Your task to perform on an android device: Open display settings Image 0: 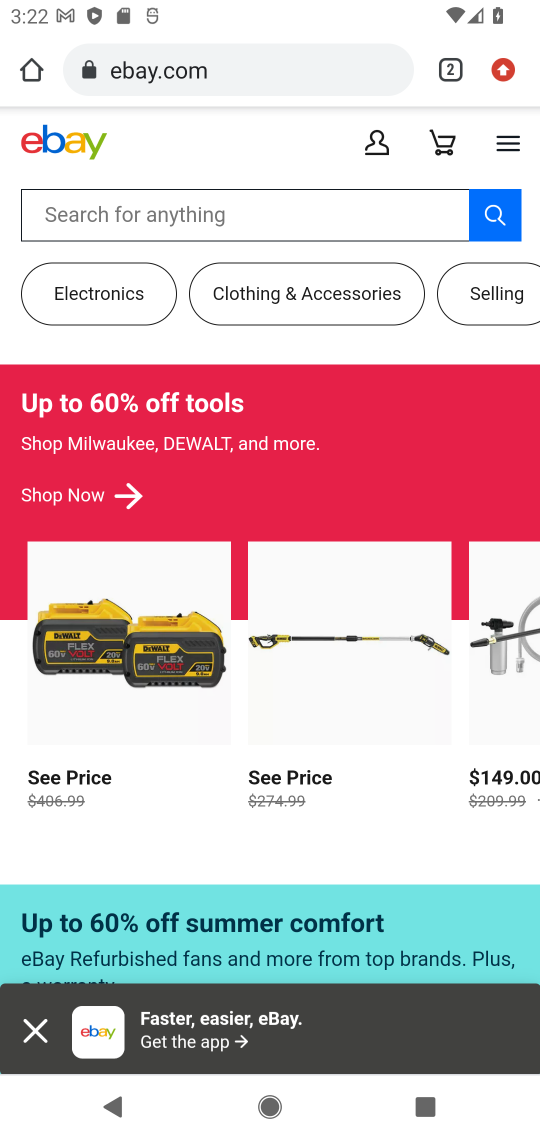
Step 0: press home button
Your task to perform on an android device: Open display settings Image 1: 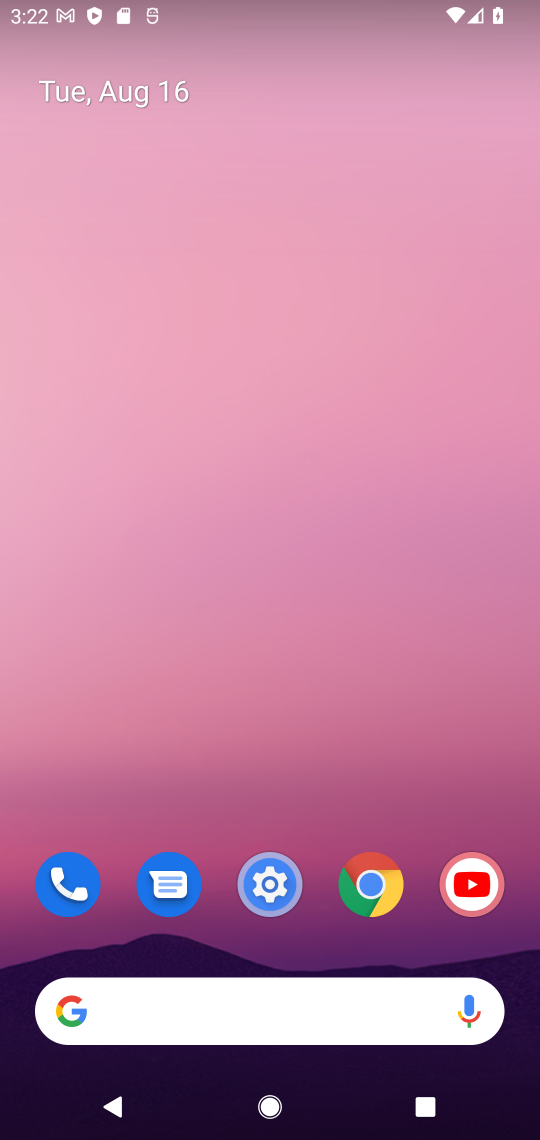
Step 1: click (261, 876)
Your task to perform on an android device: Open display settings Image 2: 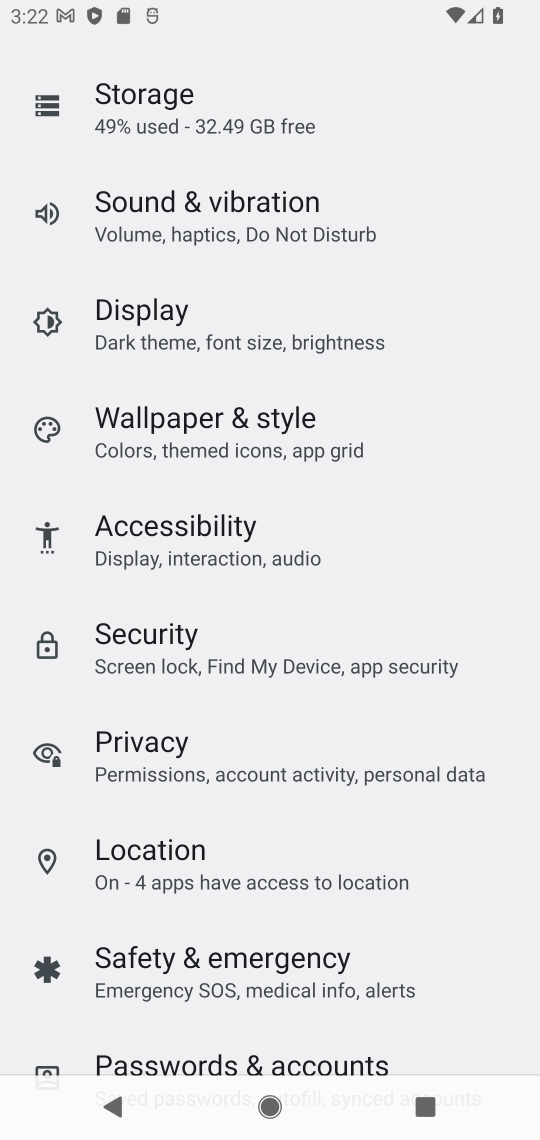
Step 2: drag from (243, 300) to (266, 834)
Your task to perform on an android device: Open display settings Image 3: 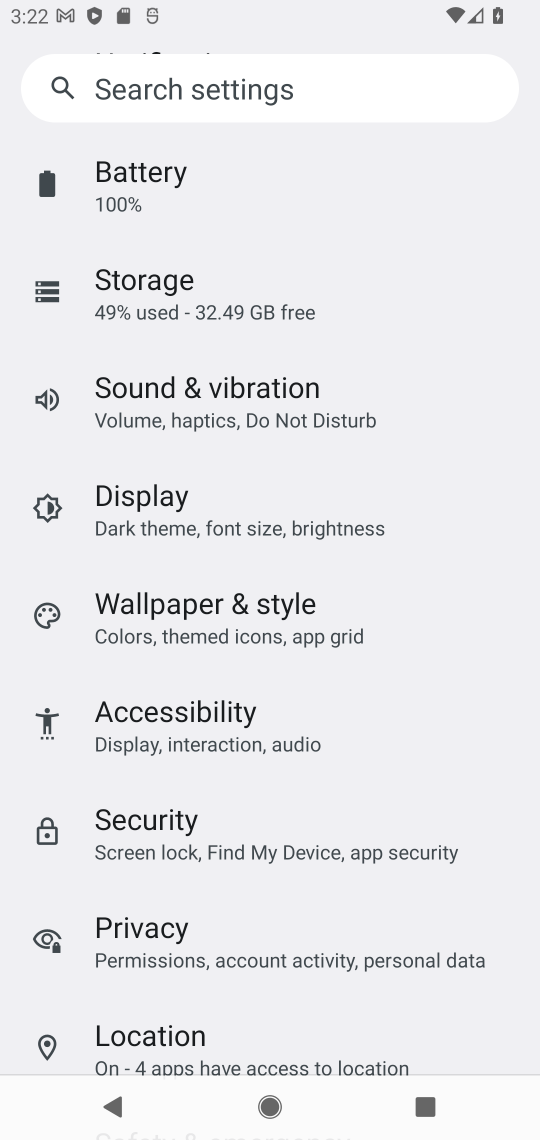
Step 3: drag from (271, 490) to (290, 918)
Your task to perform on an android device: Open display settings Image 4: 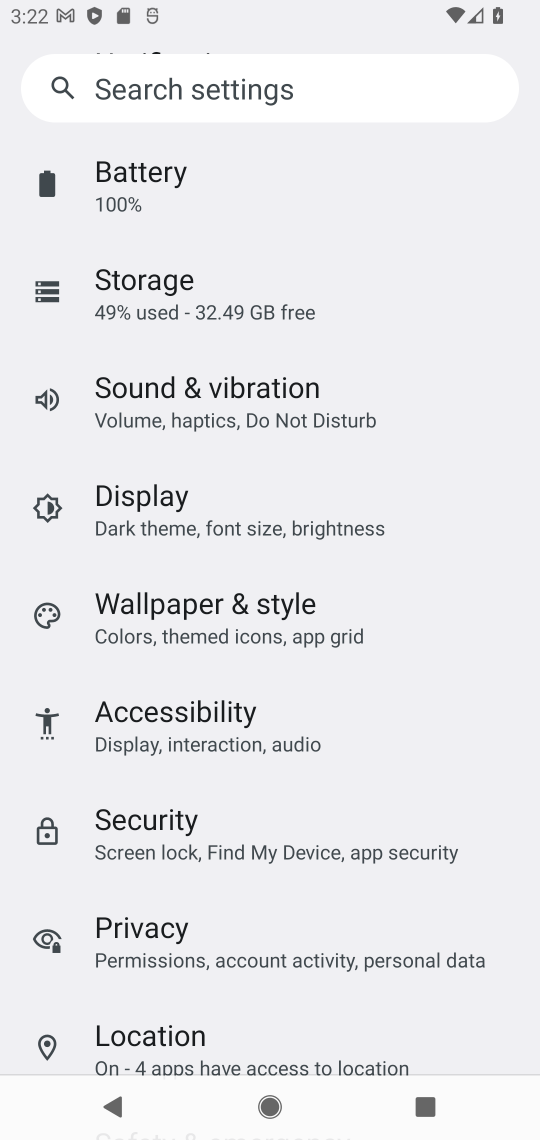
Step 4: drag from (219, 318) to (229, 891)
Your task to perform on an android device: Open display settings Image 5: 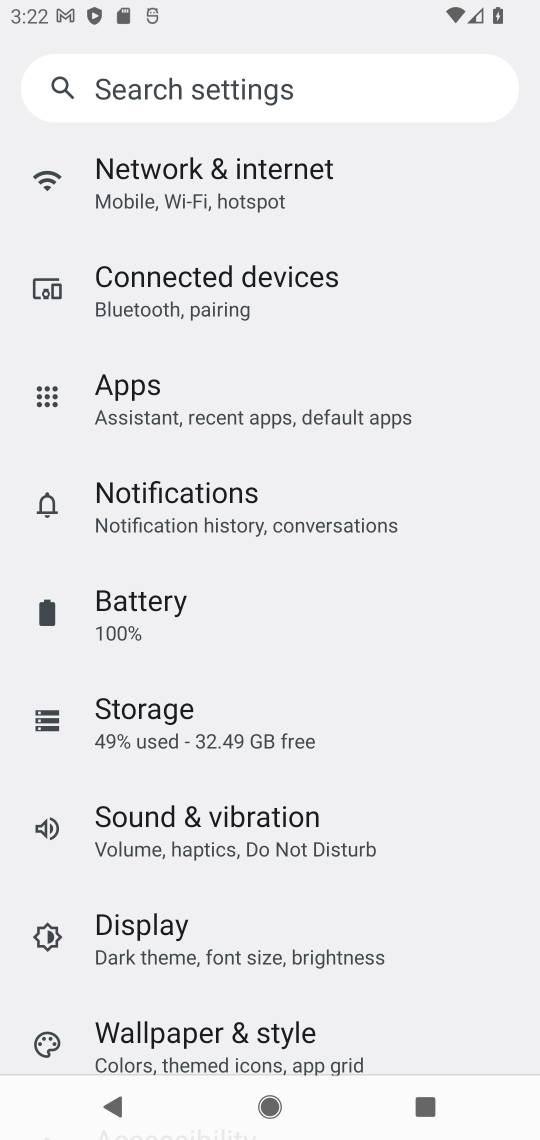
Step 5: drag from (258, 436) to (309, 932)
Your task to perform on an android device: Open display settings Image 6: 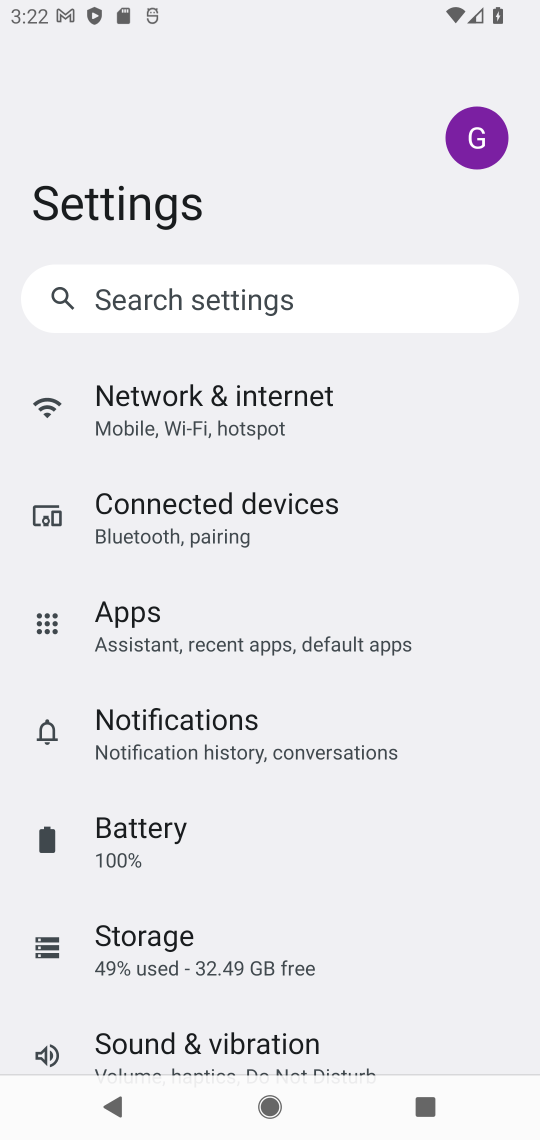
Step 6: drag from (287, 936) to (252, 346)
Your task to perform on an android device: Open display settings Image 7: 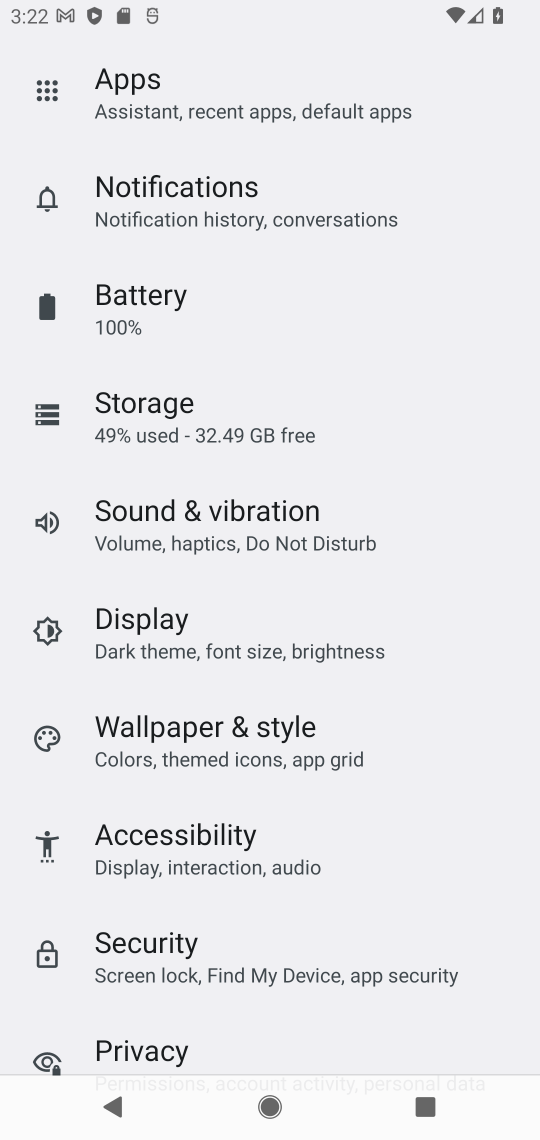
Step 7: click (178, 648)
Your task to perform on an android device: Open display settings Image 8: 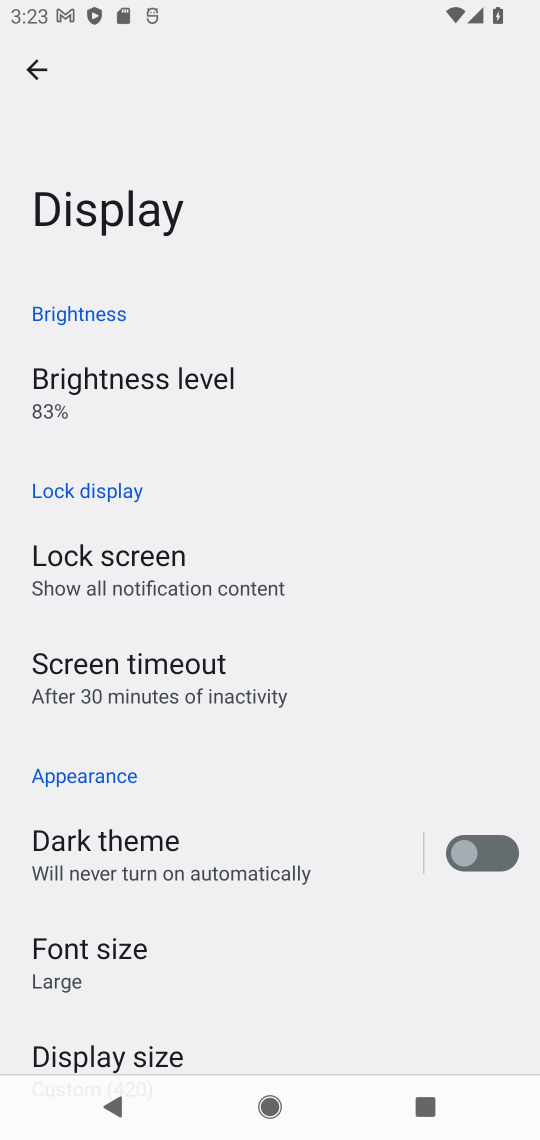
Step 8: task complete